Your task to perform on an android device: snooze an email in the gmail app Image 0: 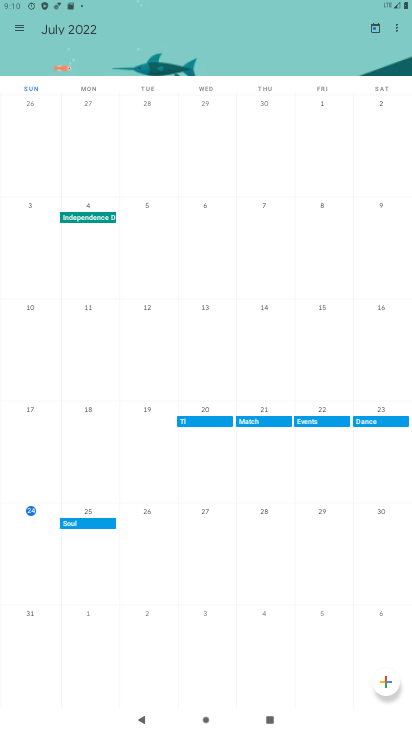
Step 0: press home button
Your task to perform on an android device: snooze an email in the gmail app Image 1: 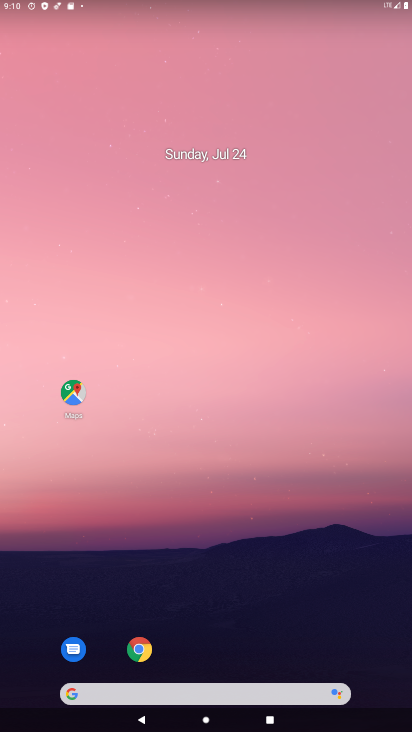
Step 1: drag from (130, 556) to (300, 219)
Your task to perform on an android device: snooze an email in the gmail app Image 2: 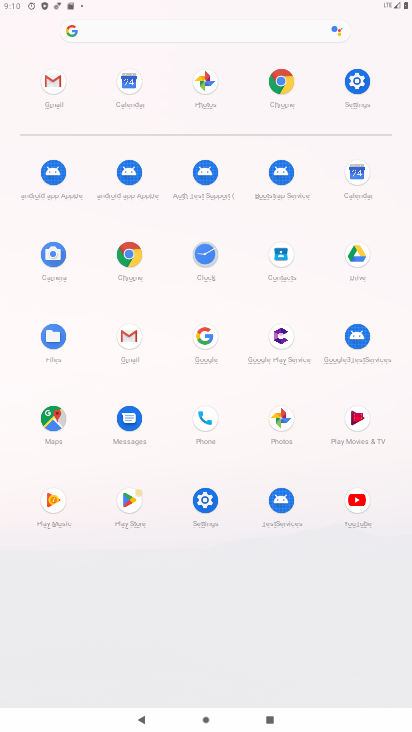
Step 2: click (134, 343)
Your task to perform on an android device: snooze an email in the gmail app Image 3: 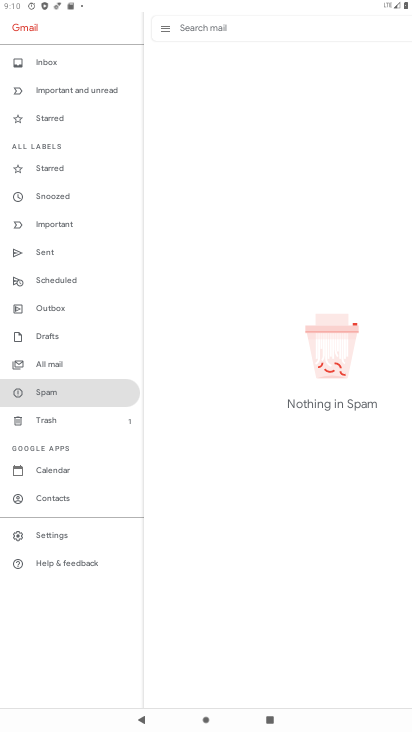
Step 3: click (62, 193)
Your task to perform on an android device: snooze an email in the gmail app Image 4: 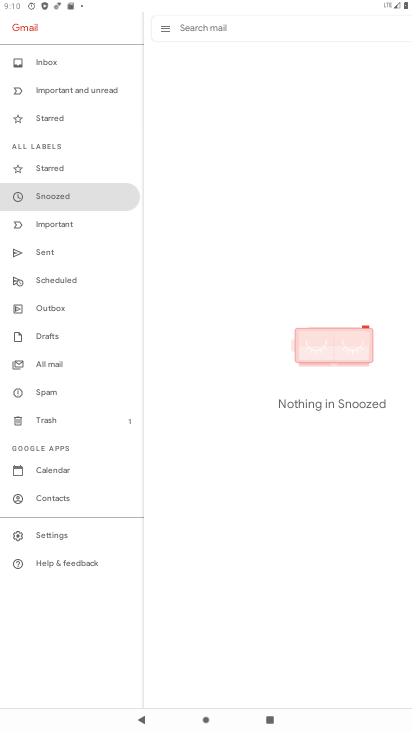
Step 4: task complete